Your task to perform on an android device: turn on javascript in the chrome app Image 0: 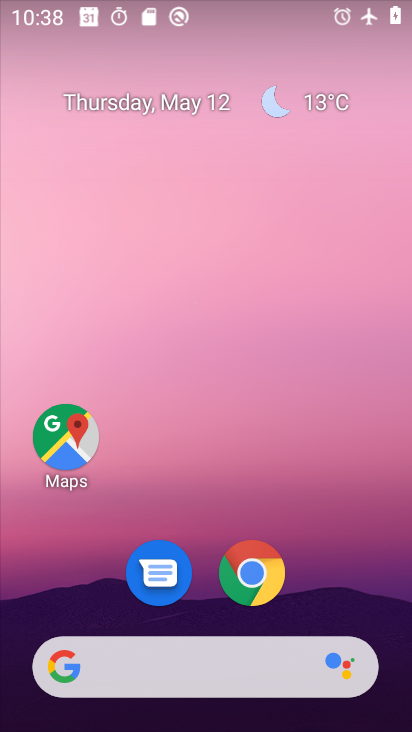
Step 0: click (256, 575)
Your task to perform on an android device: turn on javascript in the chrome app Image 1: 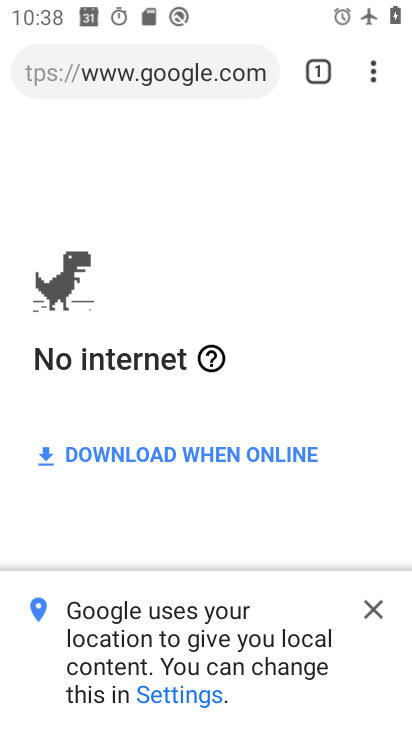
Step 1: click (372, 71)
Your task to perform on an android device: turn on javascript in the chrome app Image 2: 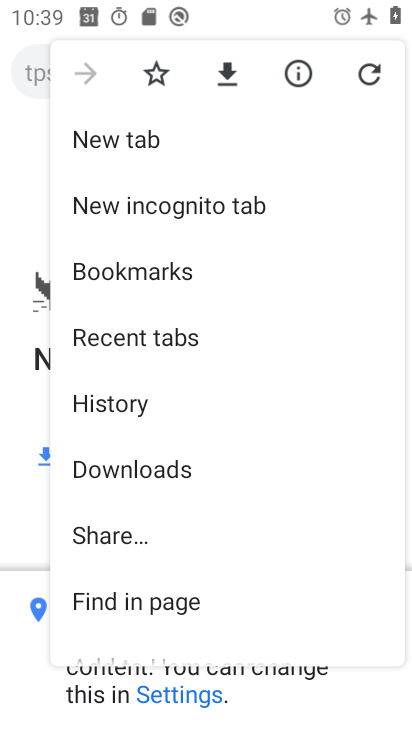
Step 2: drag from (291, 599) to (305, 304)
Your task to perform on an android device: turn on javascript in the chrome app Image 3: 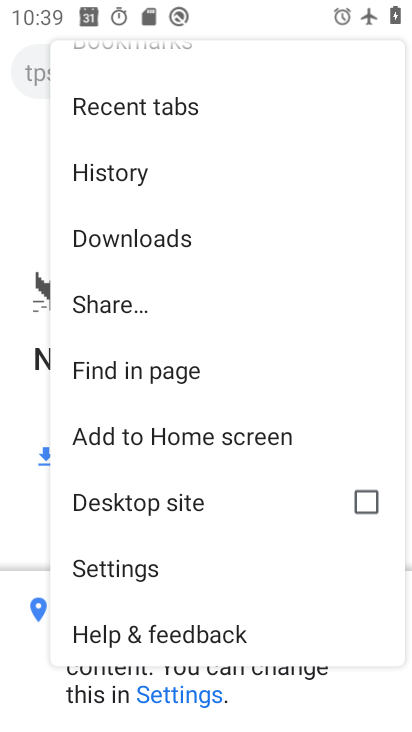
Step 3: click (129, 572)
Your task to perform on an android device: turn on javascript in the chrome app Image 4: 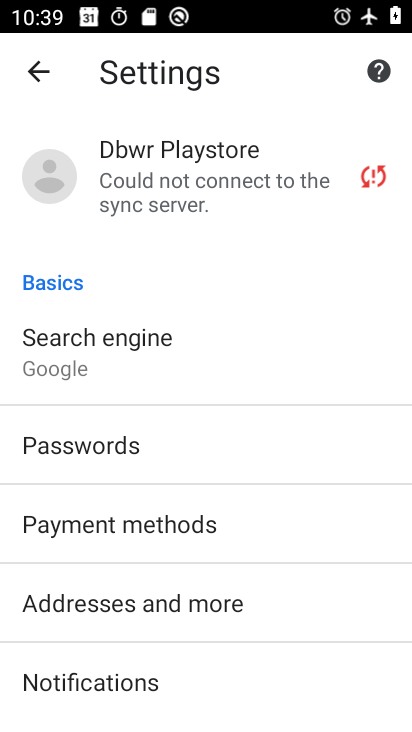
Step 4: drag from (227, 656) to (250, 400)
Your task to perform on an android device: turn on javascript in the chrome app Image 5: 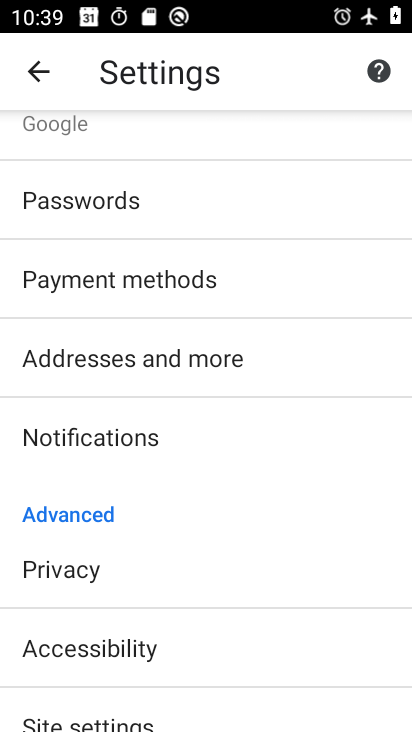
Step 5: drag from (266, 633) to (279, 418)
Your task to perform on an android device: turn on javascript in the chrome app Image 6: 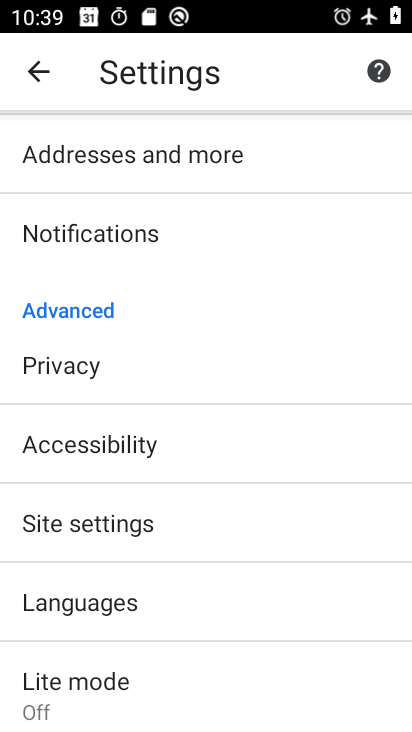
Step 6: drag from (226, 663) to (243, 396)
Your task to perform on an android device: turn on javascript in the chrome app Image 7: 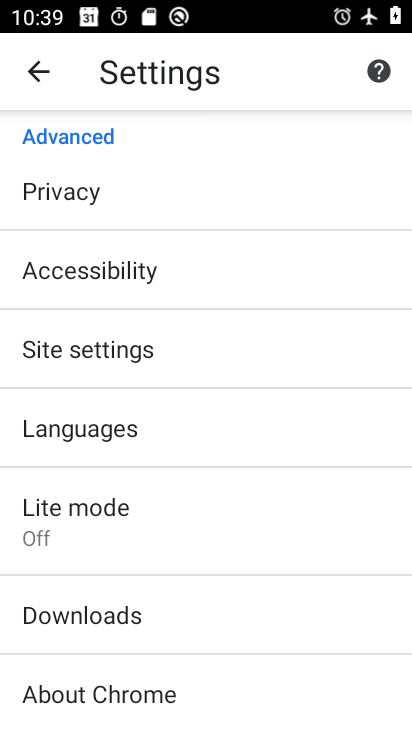
Step 7: click (62, 346)
Your task to perform on an android device: turn on javascript in the chrome app Image 8: 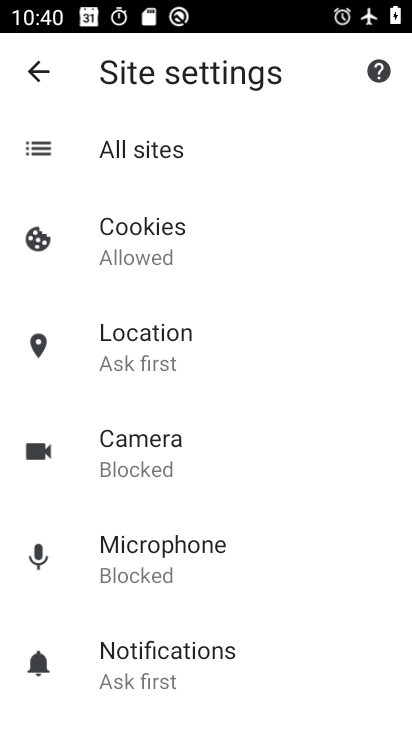
Step 8: drag from (289, 694) to (302, 408)
Your task to perform on an android device: turn on javascript in the chrome app Image 9: 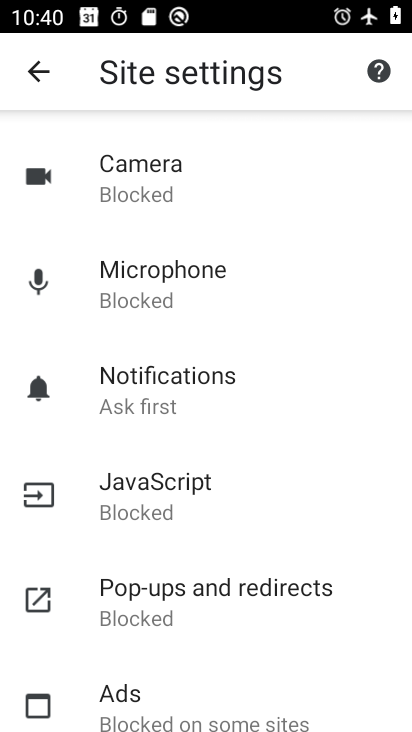
Step 9: click (131, 483)
Your task to perform on an android device: turn on javascript in the chrome app Image 10: 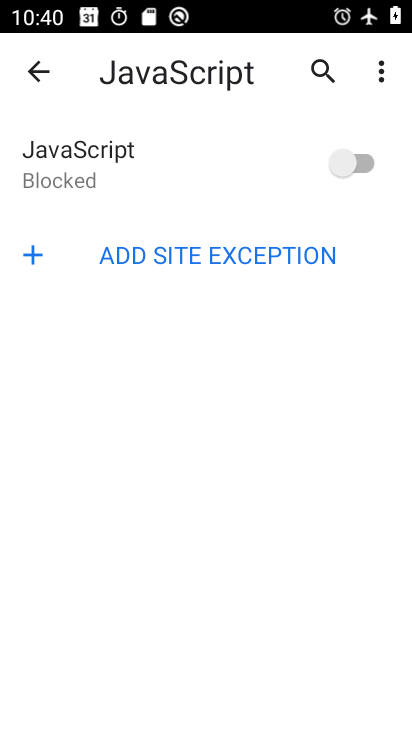
Step 10: click (363, 158)
Your task to perform on an android device: turn on javascript in the chrome app Image 11: 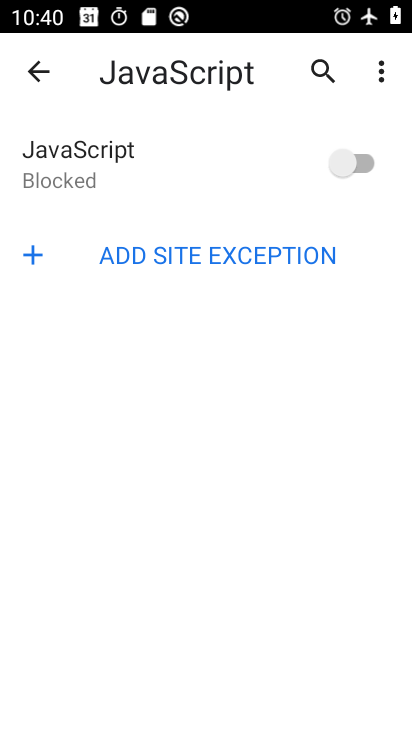
Step 11: click (364, 165)
Your task to perform on an android device: turn on javascript in the chrome app Image 12: 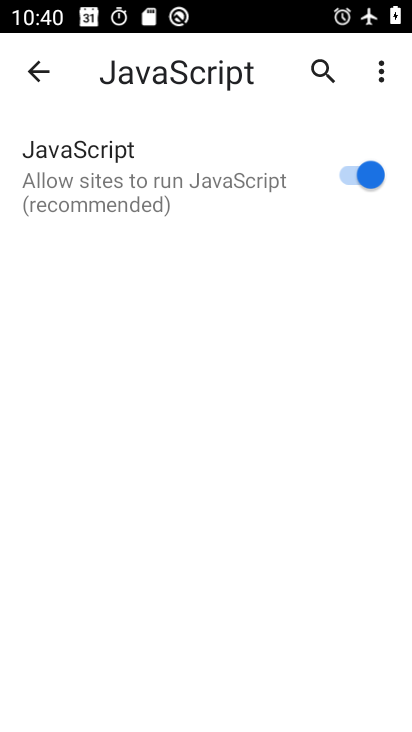
Step 12: task complete